Your task to perform on an android device: turn off improve location accuracy Image 0: 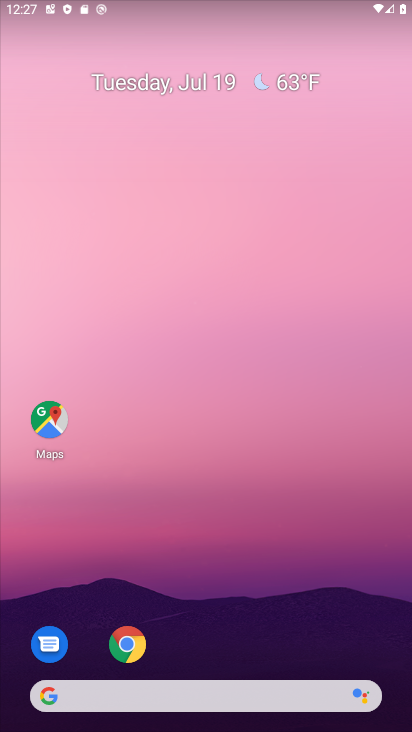
Step 0: drag from (223, 725) to (182, 190)
Your task to perform on an android device: turn off improve location accuracy Image 1: 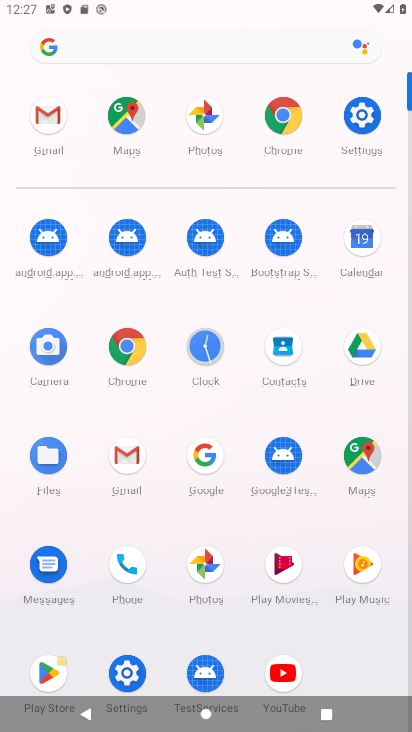
Step 1: click (370, 109)
Your task to perform on an android device: turn off improve location accuracy Image 2: 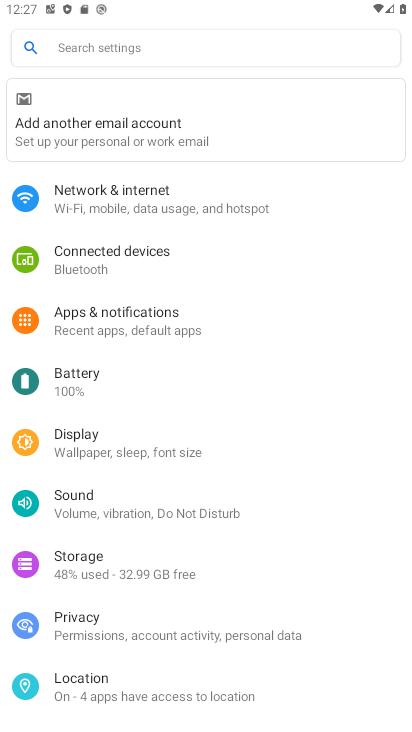
Step 2: click (96, 681)
Your task to perform on an android device: turn off improve location accuracy Image 3: 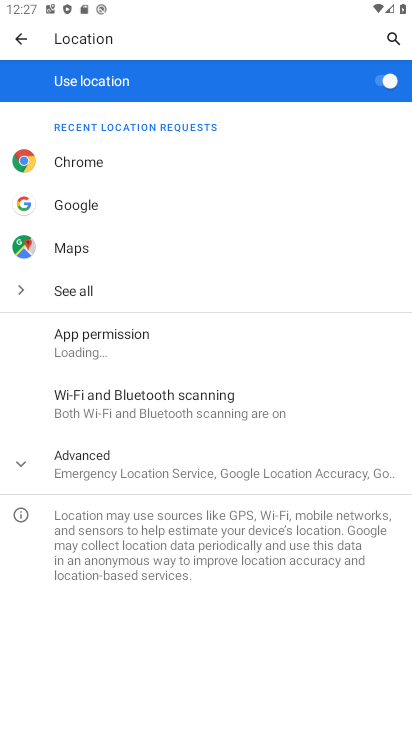
Step 3: click (104, 467)
Your task to perform on an android device: turn off improve location accuracy Image 4: 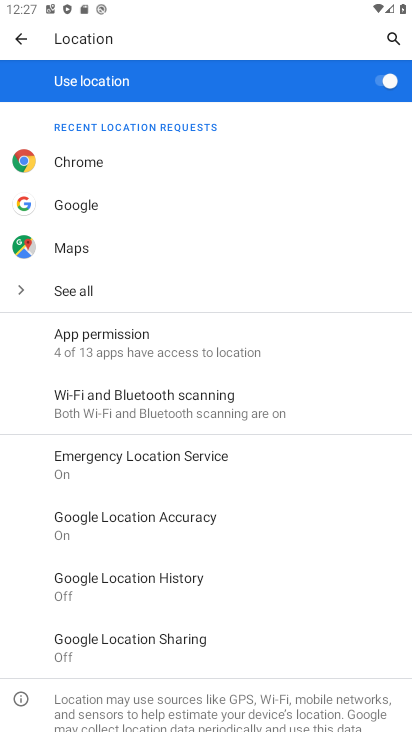
Step 4: click (154, 513)
Your task to perform on an android device: turn off improve location accuracy Image 5: 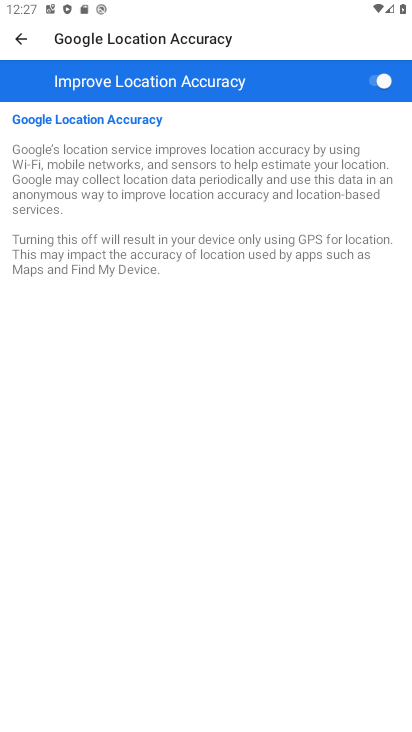
Step 5: click (374, 78)
Your task to perform on an android device: turn off improve location accuracy Image 6: 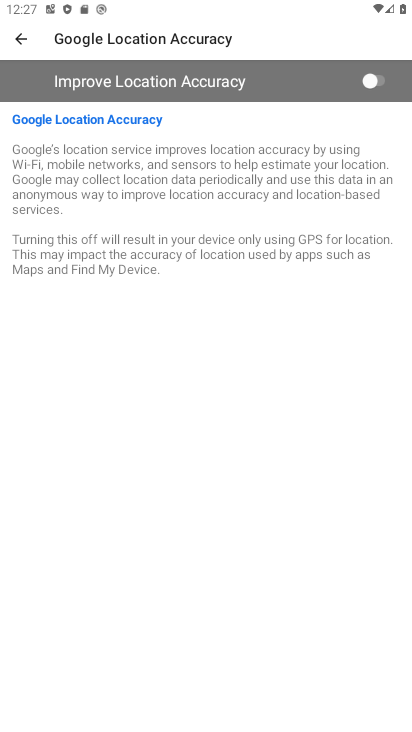
Step 6: task complete